Your task to perform on an android device: Go to eBay Image 0: 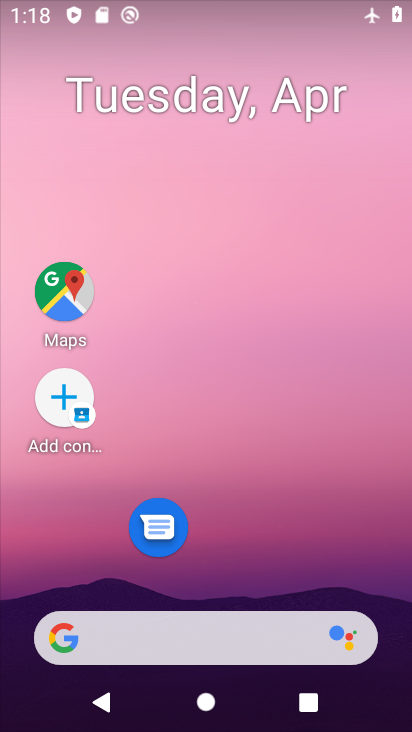
Step 0: drag from (257, 598) to (268, 181)
Your task to perform on an android device: Go to eBay Image 1: 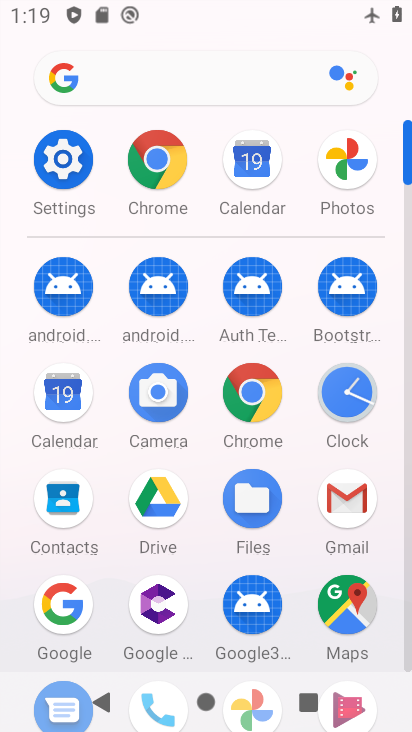
Step 1: drag from (200, 507) to (215, 361)
Your task to perform on an android device: Go to eBay Image 2: 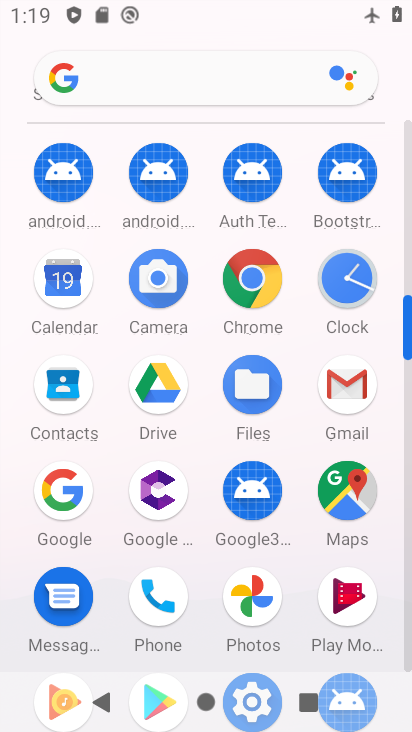
Step 2: click (75, 504)
Your task to perform on an android device: Go to eBay Image 3: 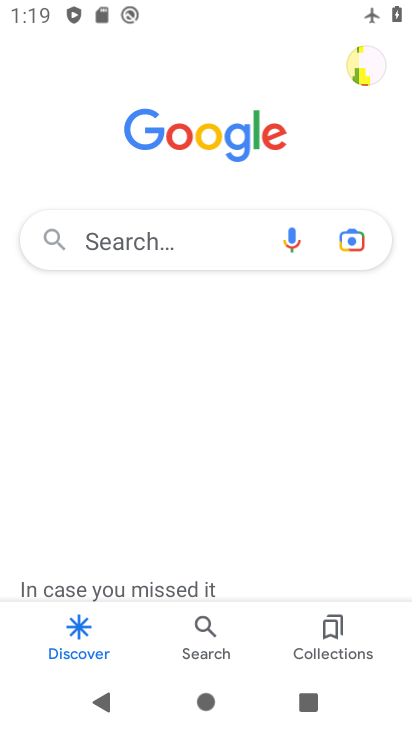
Step 3: click (182, 234)
Your task to perform on an android device: Go to eBay Image 4: 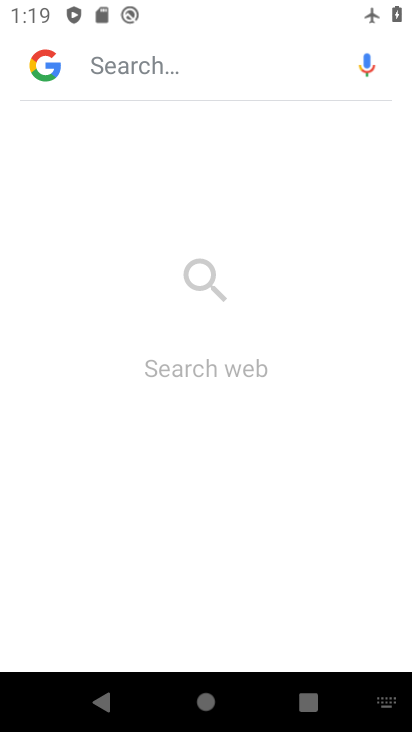
Step 4: type "eBay"
Your task to perform on an android device: Go to eBay Image 5: 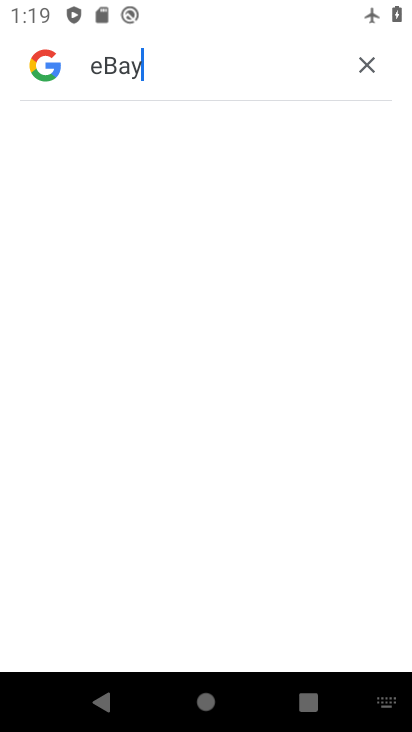
Step 5: type ""
Your task to perform on an android device: Go to eBay Image 6: 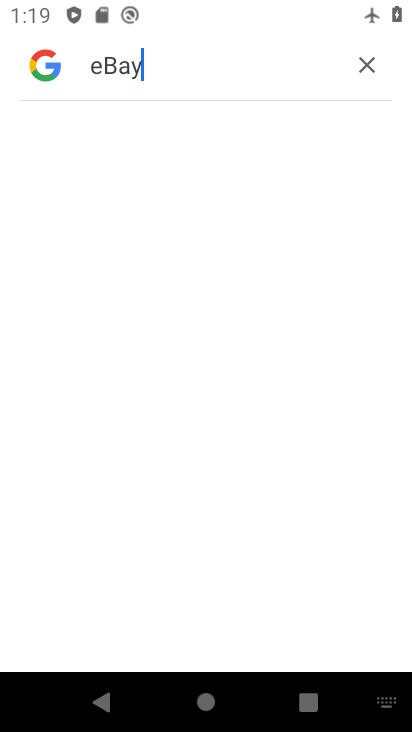
Step 6: task complete